Your task to perform on an android device: choose inbox layout in the gmail app Image 0: 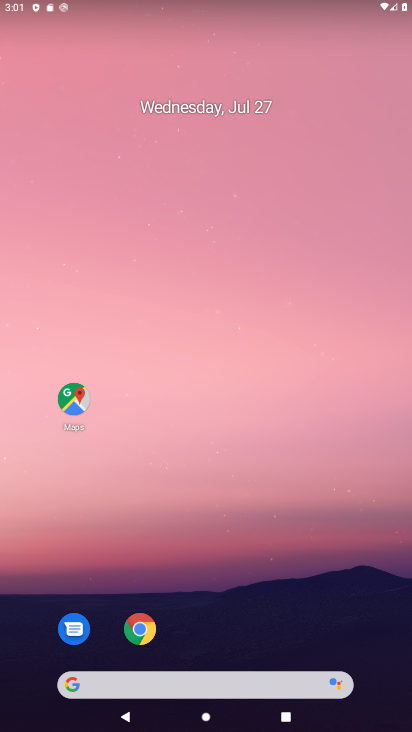
Step 0: press home button
Your task to perform on an android device: choose inbox layout in the gmail app Image 1: 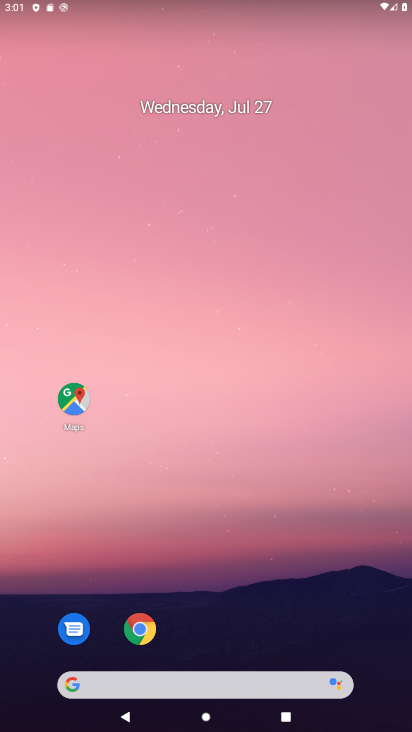
Step 1: drag from (233, 646) to (271, 108)
Your task to perform on an android device: choose inbox layout in the gmail app Image 2: 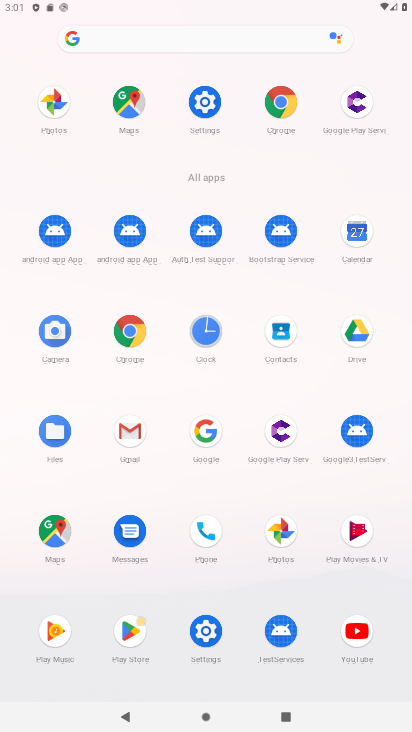
Step 2: click (127, 437)
Your task to perform on an android device: choose inbox layout in the gmail app Image 3: 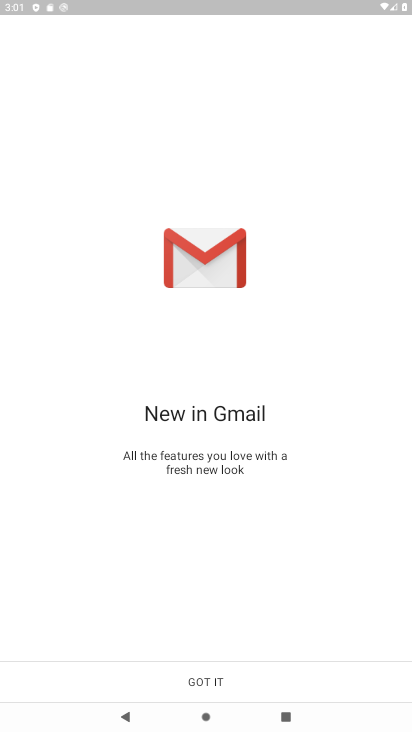
Step 3: click (202, 681)
Your task to perform on an android device: choose inbox layout in the gmail app Image 4: 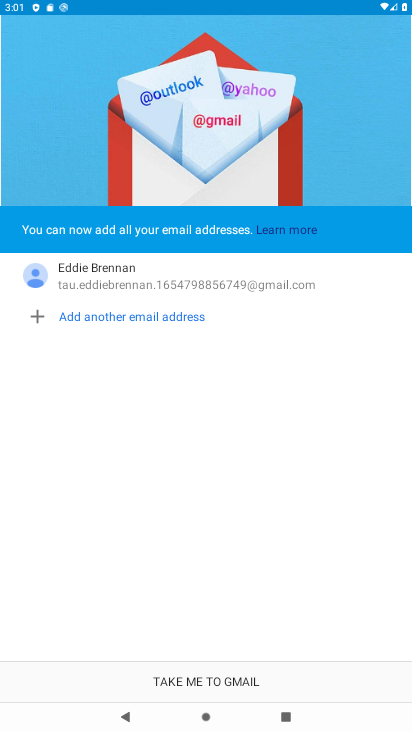
Step 4: click (206, 681)
Your task to perform on an android device: choose inbox layout in the gmail app Image 5: 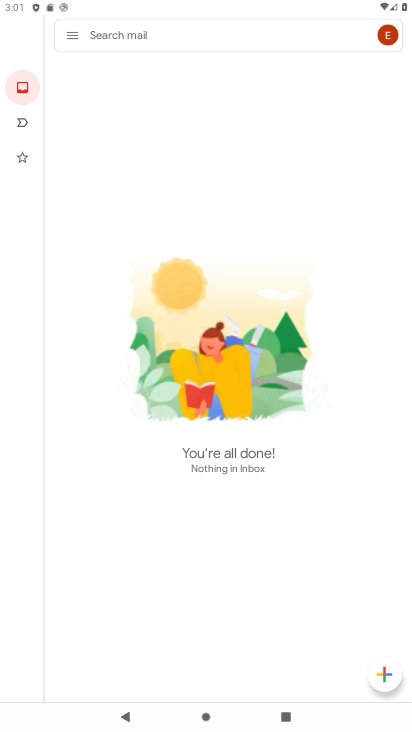
Step 5: click (71, 29)
Your task to perform on an android device: choose inbox layout in the gmail app Image 6: 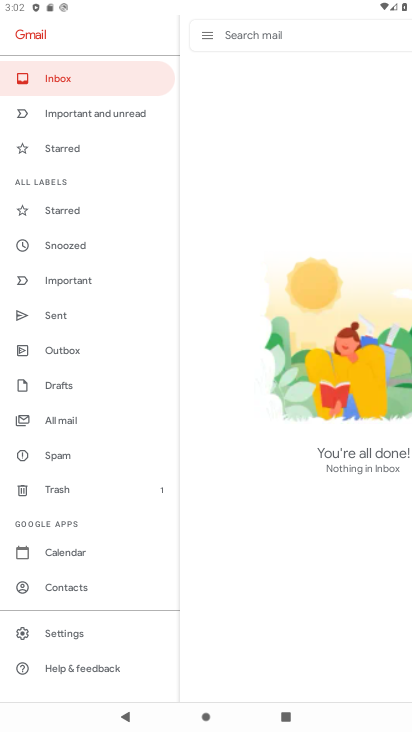
Step 6: click (58, 632)
Your task to perform on an android device: choose inbox layout in the gmail app Image 7: 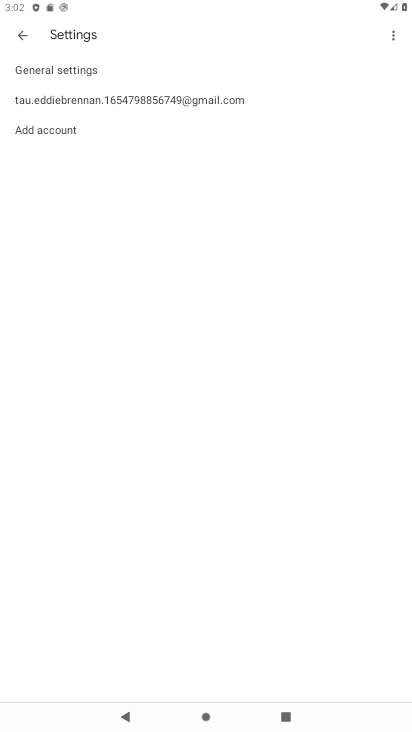
Step 7: click (71, 97)
Your task to perform on an android device: choose inbox layout in the gmail app Image 8: 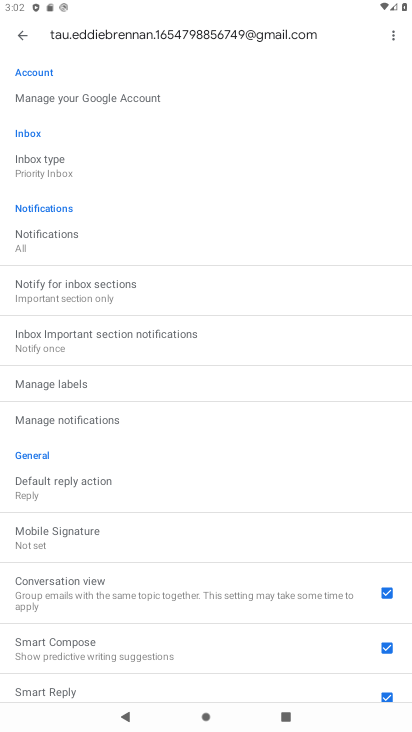
Step 8: click (53, 157)
Your task to perform on an android device: choose inbox layout in the gmail app Image 9: 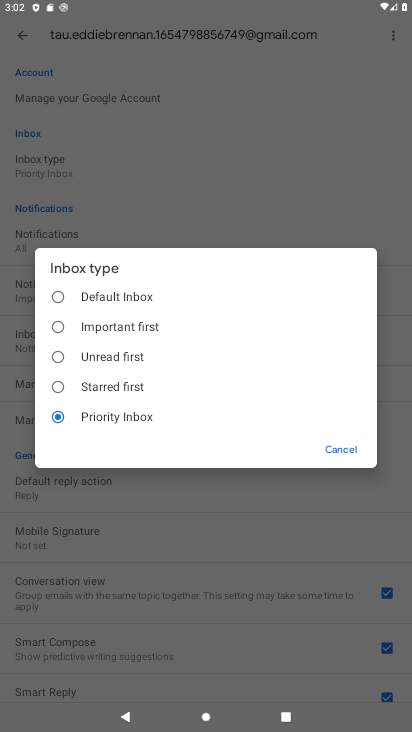
Step 9: click (56, 298)
Your task to perform on an android device: choose inbox layout in the gmail app Image 10: 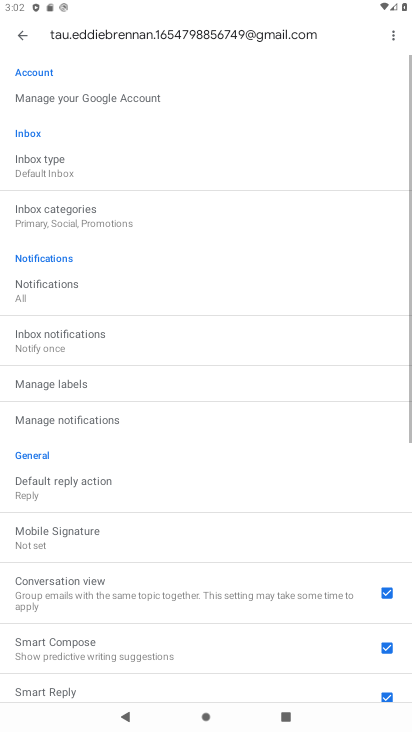
Step 10: task complete